Your task to perform on an android device: change notifications settings Image 0: 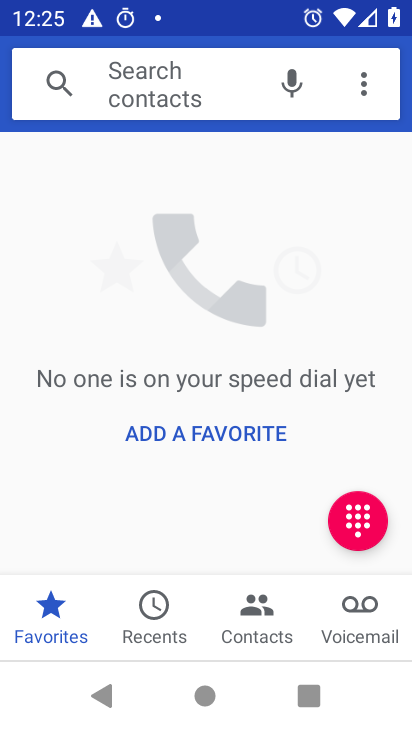
Step 0: press back button
Your task to perform on an android device: change notifications settings Image 1: 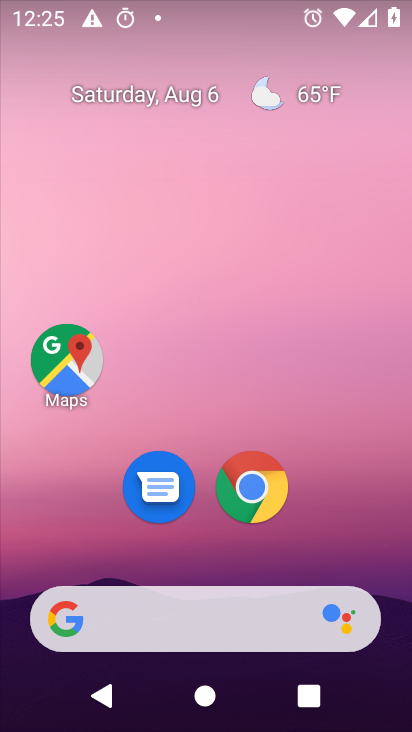
Step 1: drag from (189, 590) to (226, 19)
Your task to perform on an android device: change notifications settings Image 2: 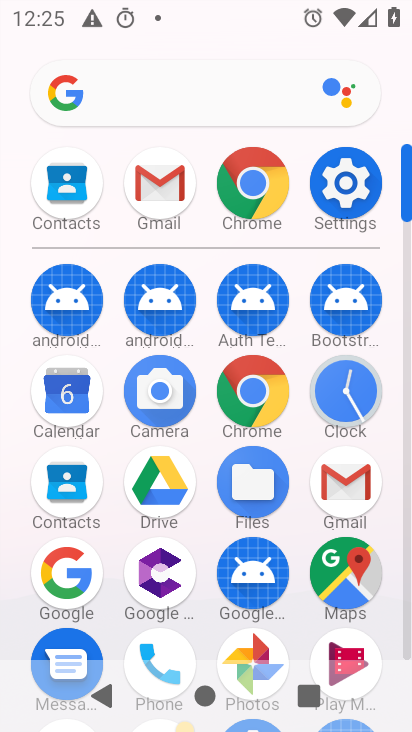
Step 2: click (356, 188)
Your task to perform on an android device: change notifications settings Image 3: 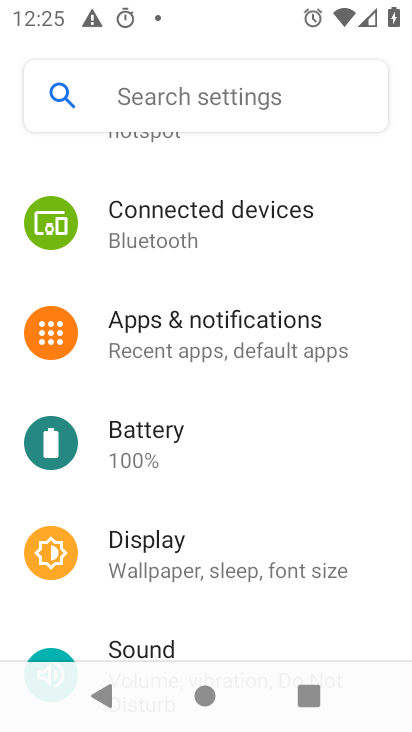
Step 3: drag from (299, 206) to (233, 714)
Your task to perform on an android device: change notifications settings Image 4: 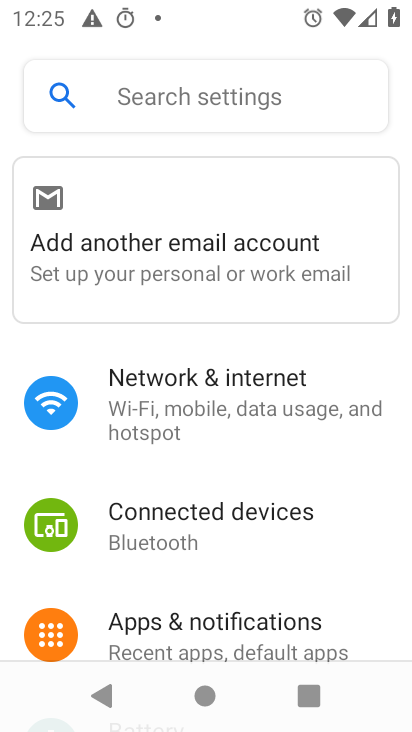
Step 4: click (204, 614)
Your task to perform on an android device: change notifications settings Image 5: 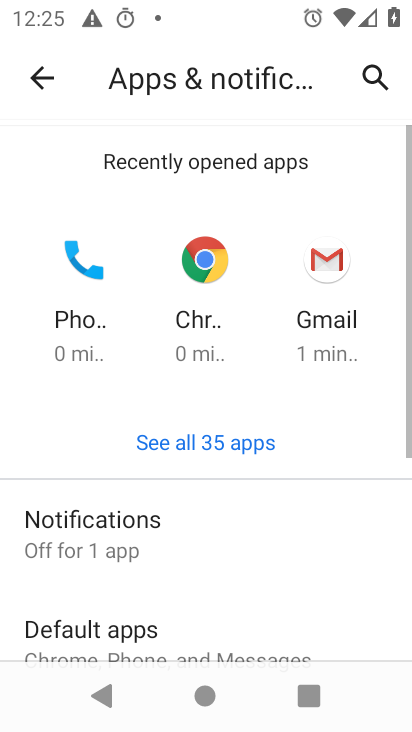
Step 5: click (157, 554)
Your task to perform on an android device: change notifications settings Image 6: 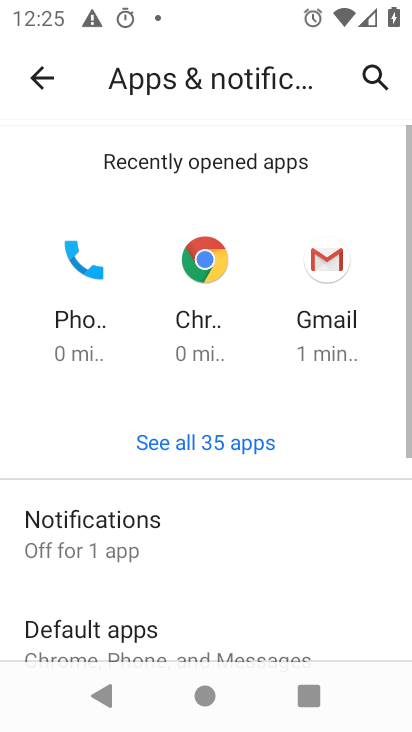
Step 6: drag from (157, 550) to (297, 32)
Your task to perform on an android device: change notifications settings Image 7: 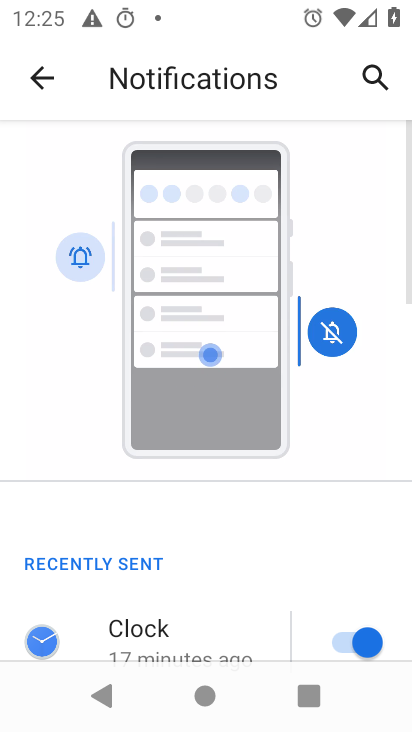
Step 7: drag from (187, 608) to (271, 108)
Your task to perform on an android device: change notifications settings Image 8: 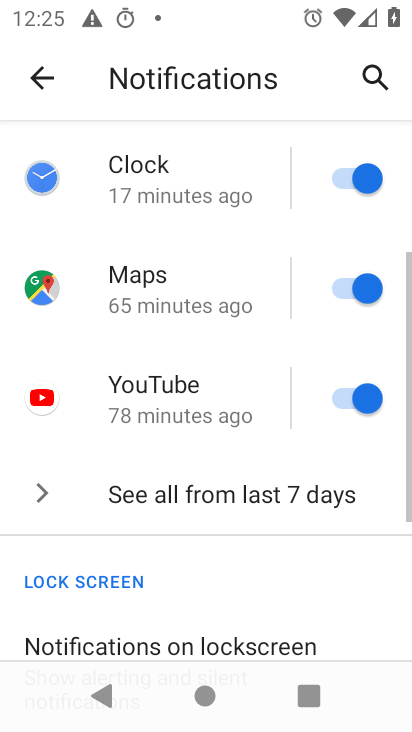
Step 8: drag from (147, 591) to (240, 140)
Your task to perform on an android device: change notifications settings Image 9: 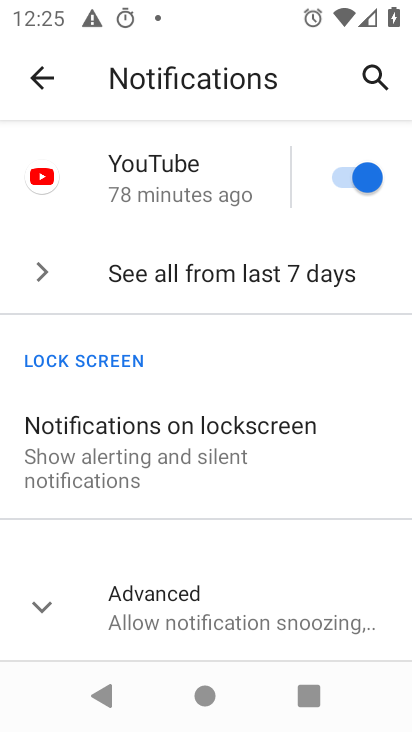
Step 9: click (174, 624)
Your task to perform on an android device: change notifications settings Image 10: 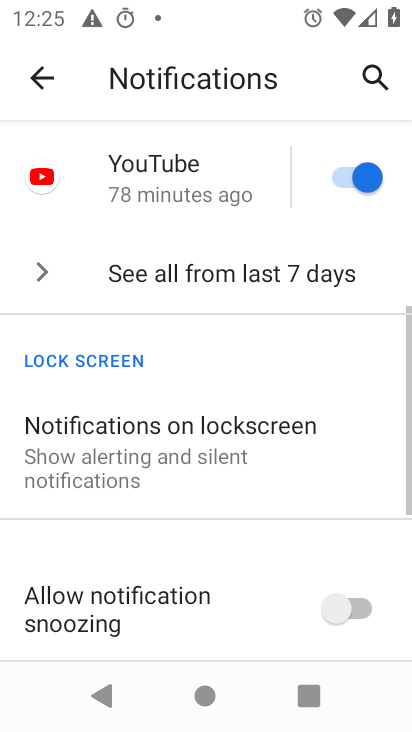
Step 10: click (333, 607)
Your task to perform on an android device: change notifications settings Image 11: 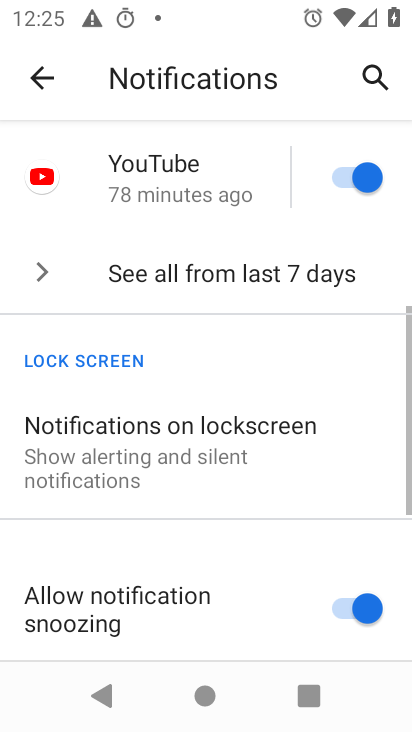
Step 11: task complete